Your task to perform on an android device: What's the weather like in Moscow? Image 0: 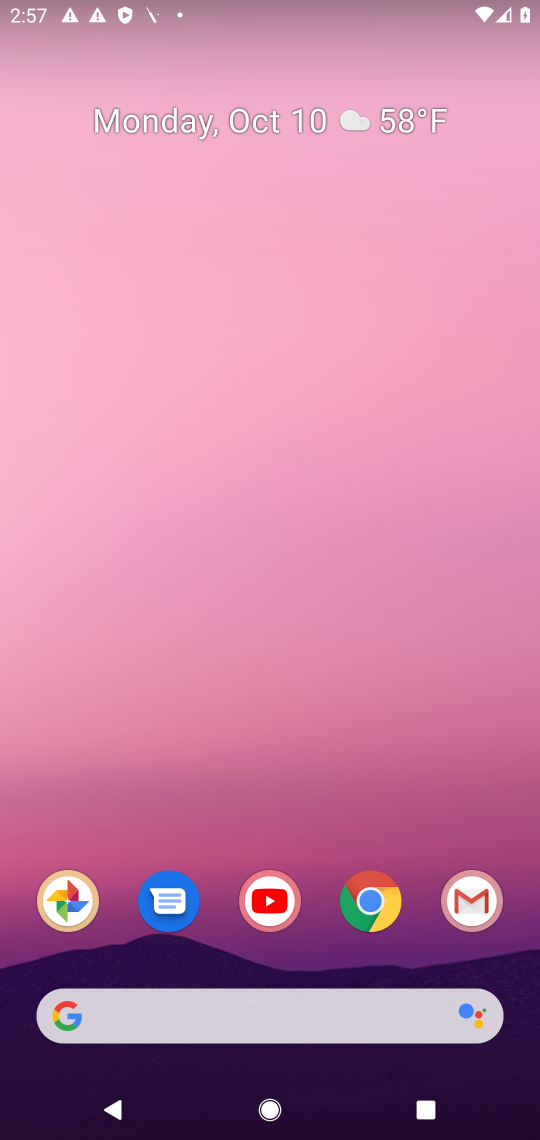
Step 0: drag from (307, 997) to (421, 443)
Your task to perform on an android device: What's the weather like in Moscow? Image 1: 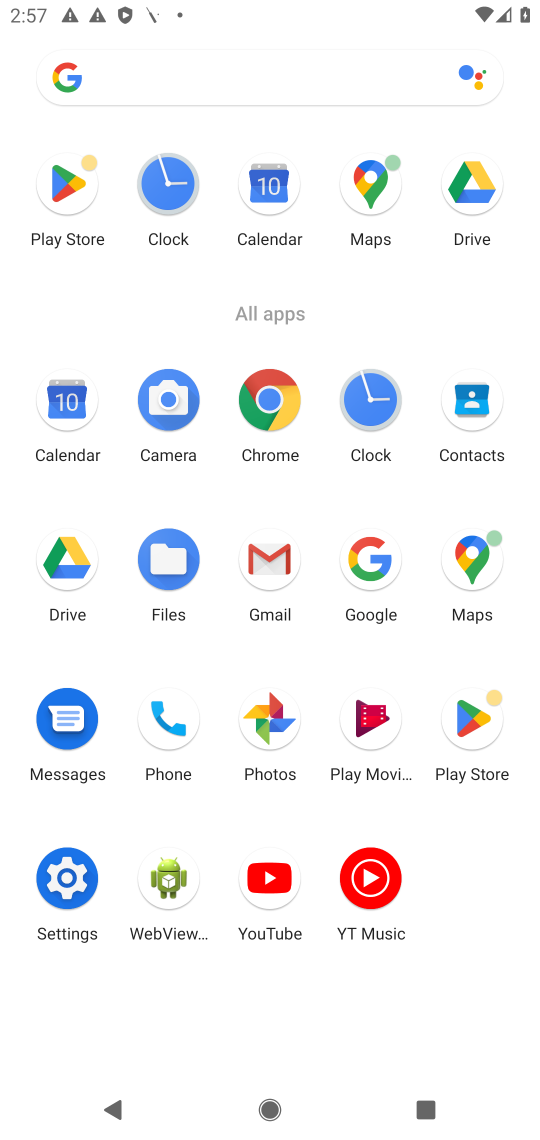
Step 1: click (376, 562)
Your task to perform on an android device: What's the weather like in Moscow? Image 2: 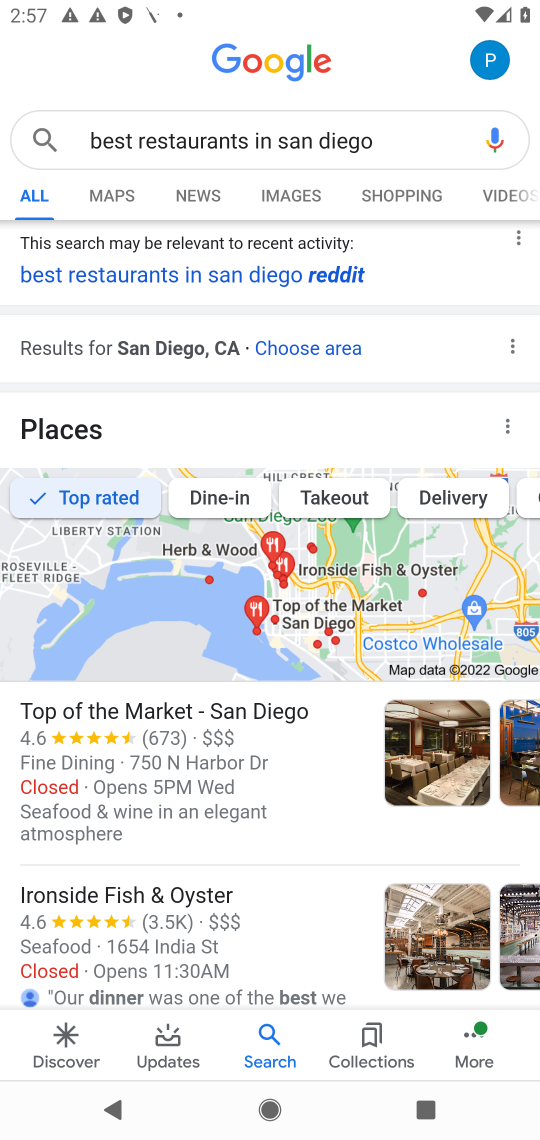
Step 2: click (434, 151)
Your task to perform on an android device: What's the weather like in Moscow? Image 3: 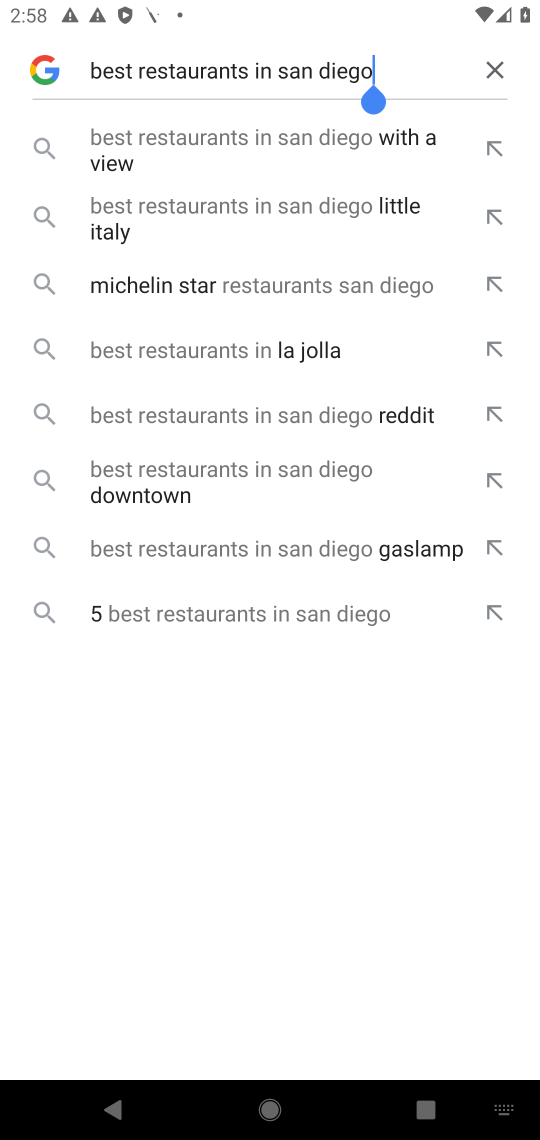
Step 3: click (490, 76)
Your task to perform on an android device: What's the weather like in Moscow? Image 4: 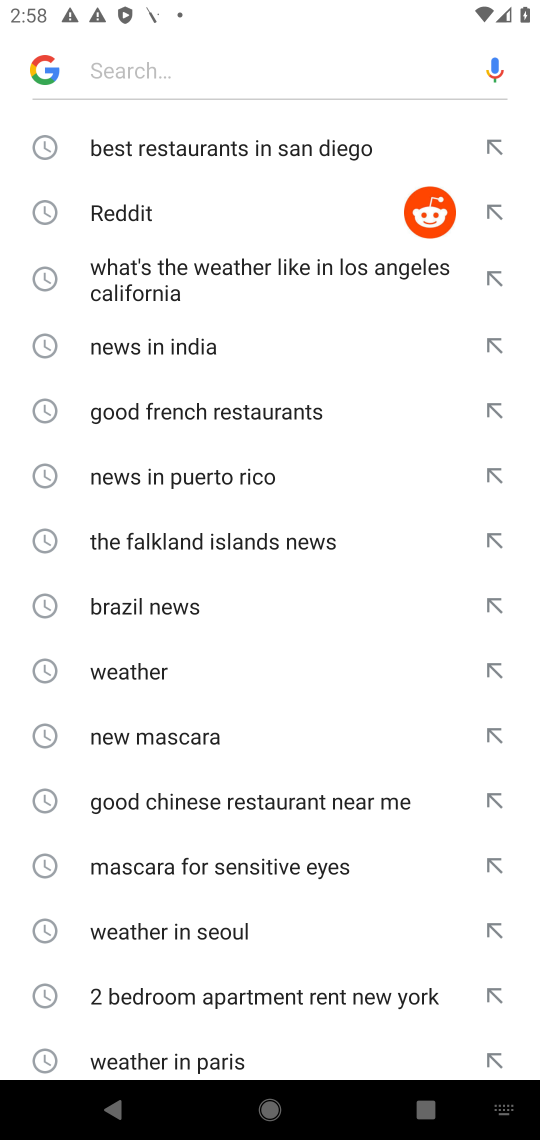
Step 4: type "What's the weather like in Moscow?"
Your task to perform on an android device: What's the weather like in Moscow? Image 5: 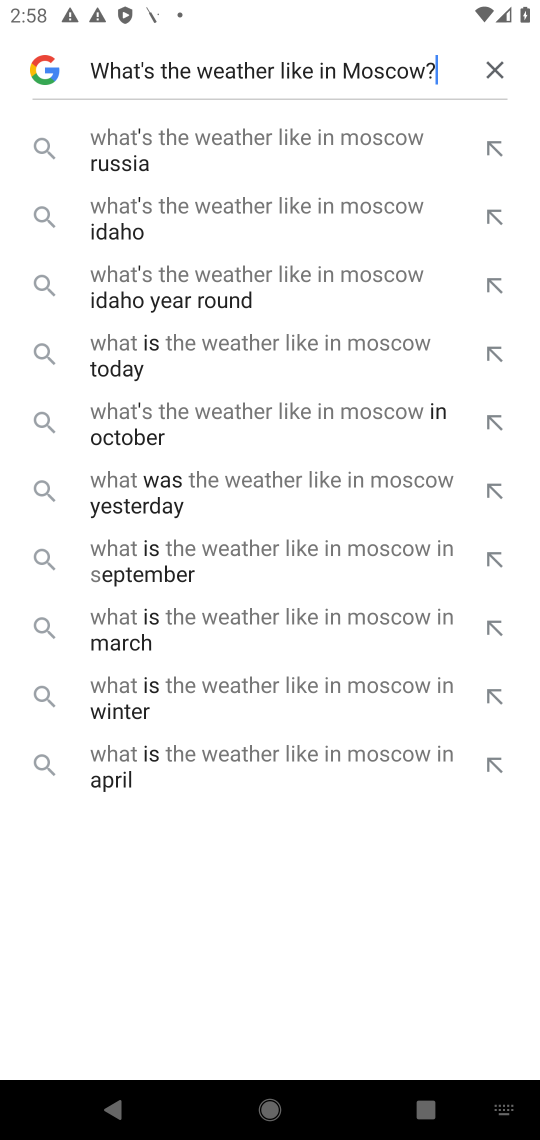
Step 5: click (311, 141)
Your task to perform on an android device: What's the weather like in Moscow? Image 6: 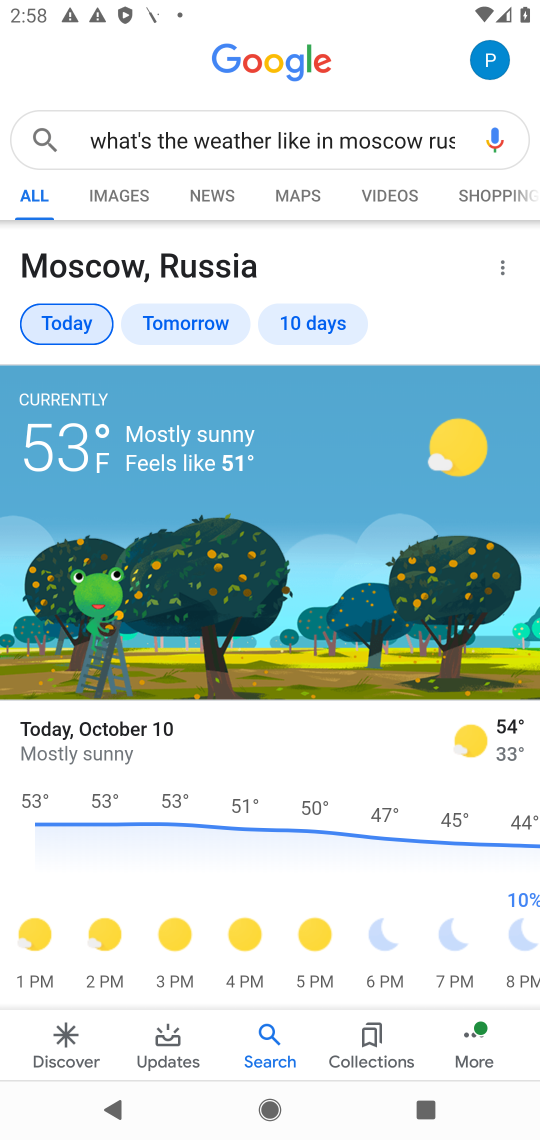
Step 6: task complete